Your task to perform on an android device: Open Chrome and go to the settings page Image 0: 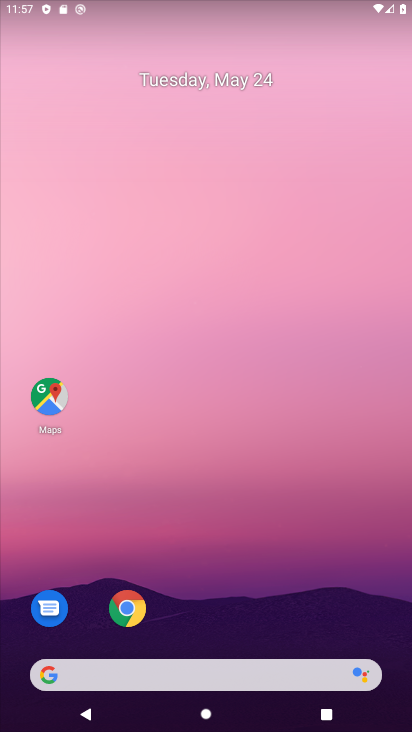
Step 0: drag from (303, 599) to (304, 183)
Your task to perform on an android device: Open Chrome and go to the settings page Image 1: 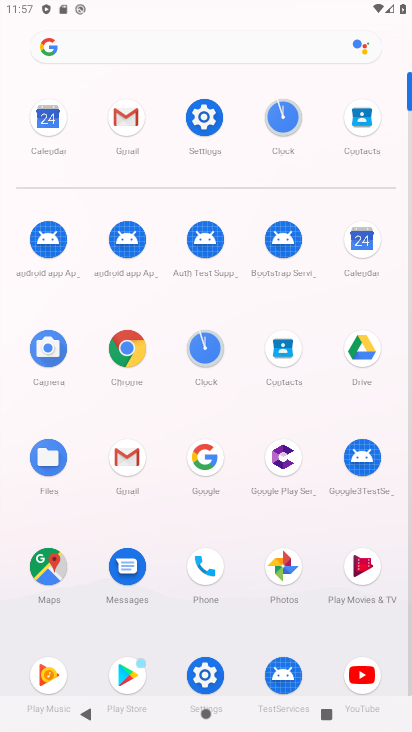
Step 1: click (124, 376)
Your task to perform on an android device: Open Chrome and go to the settings page Image 2: 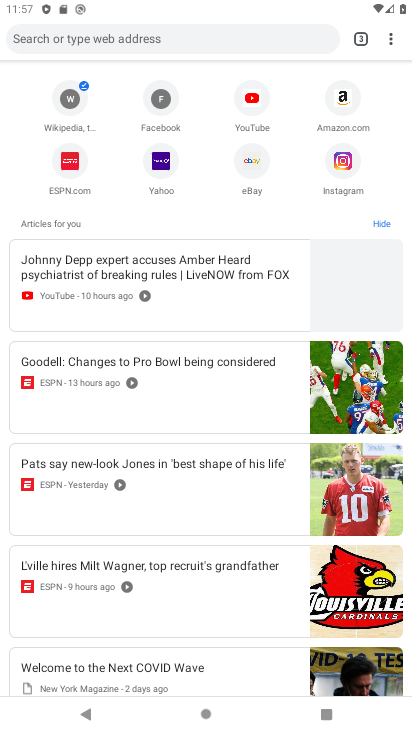
Step 2: click (385, 27)
Your task to perform on an android device: Open Chrome and go to the settings page Image 3: 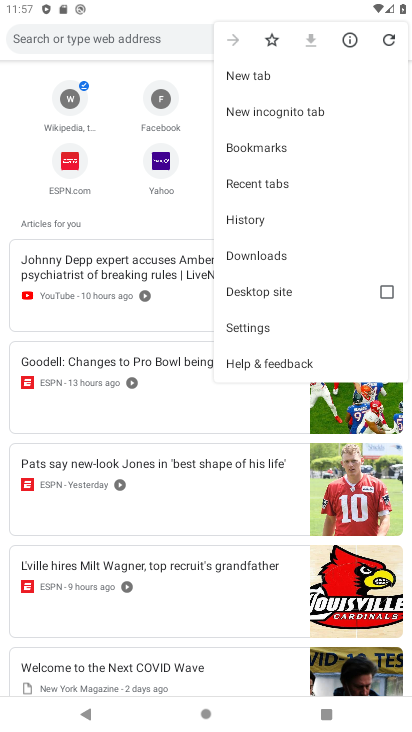
Step 3: click (257, 324)
Your task to perform on an android device: Open Chrome and go to the settings page Image 4: 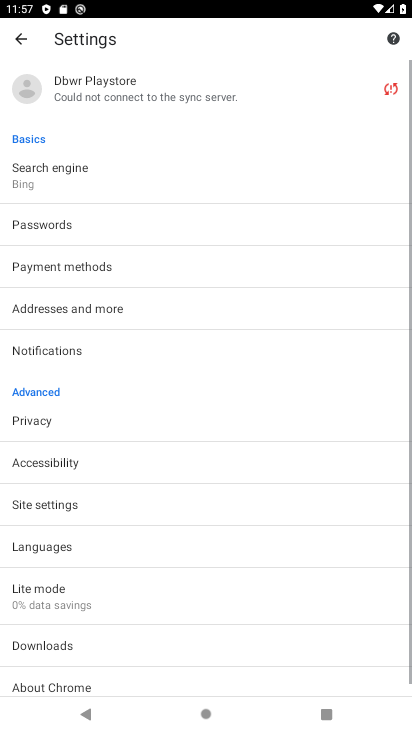
Step 4: task complete